Your task to perform on an android device: refresh tabs in the chrome app Image 0: 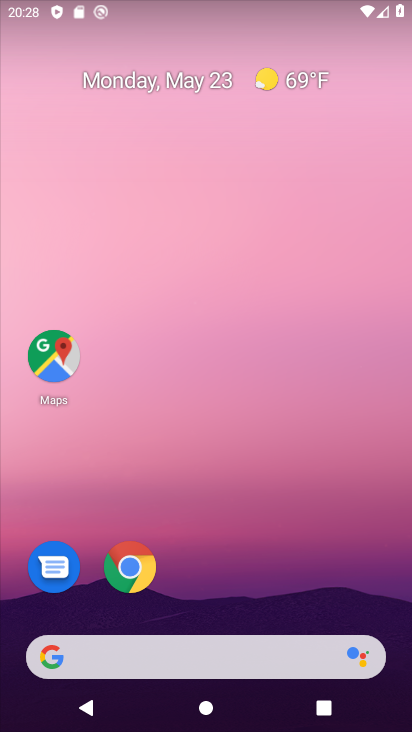
Step 0: click (140, 572)
Your task to perform on an android device: refresh tabs in the chrome app Image 1: 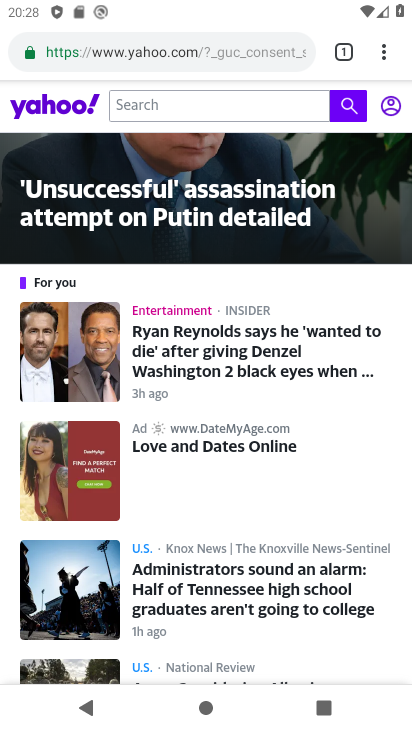
Step 1: click (382, 57)
Your task to perform on an android device: refresh tabs in the chrome app Image 2: 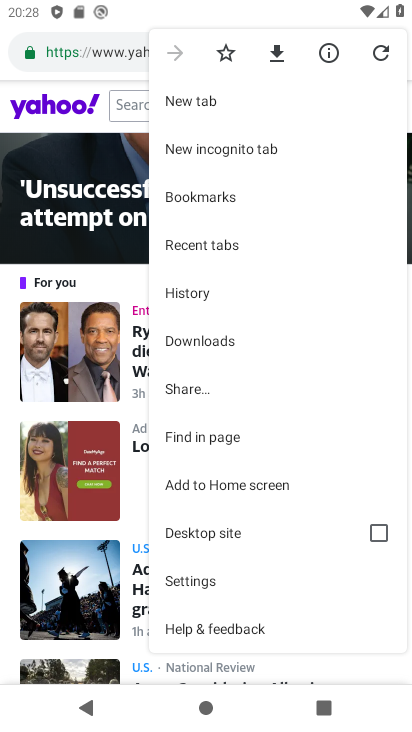
Step 2: click (387, 53)
Your task to perform on an android device: refresh tabs in the chrome app Image 3: 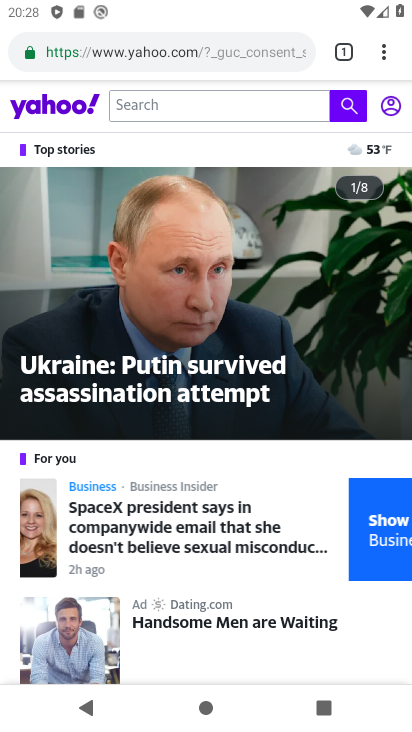
Step 3: task complete